Your task to perform on an android device: uninstall "YouTube Kids" Image 0: 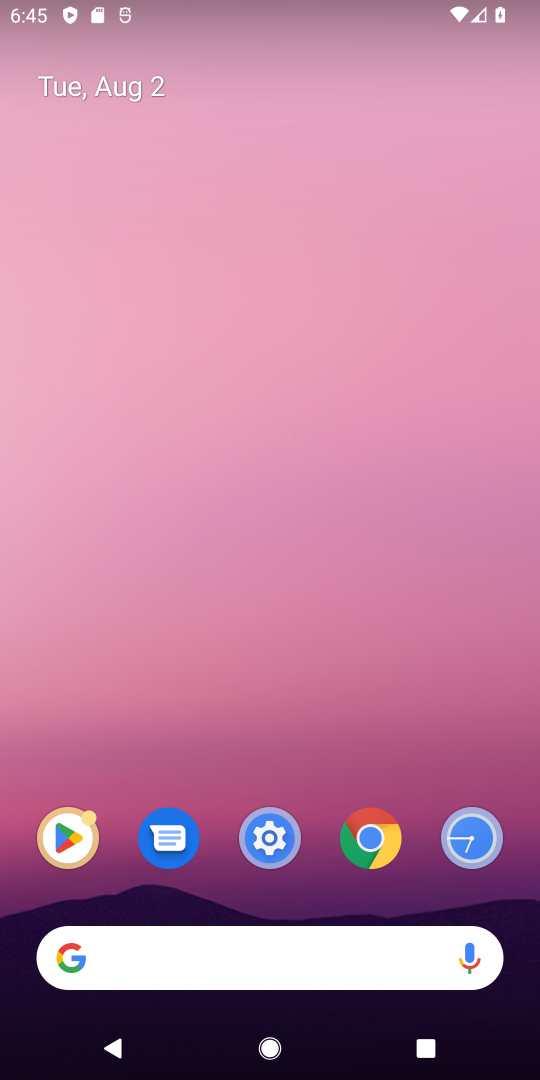
Step 0: click (83, 841)
Your task to perform on an android device: uninstall "YouTube Kids" Image 1: 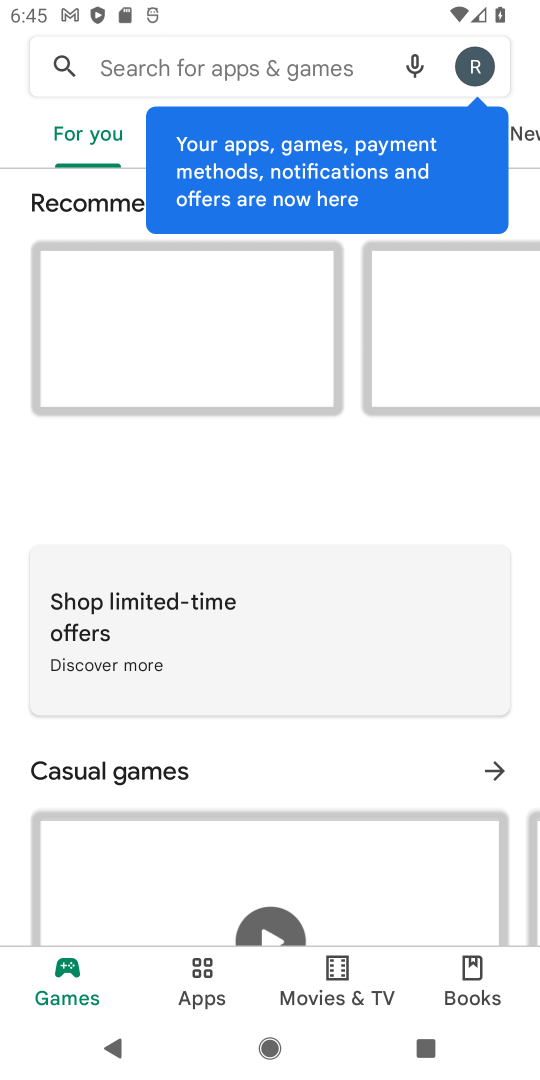
Step 1: click (298, 59)
Your task to perform on an android device: uninstall "YouTube Kids" Image 2: 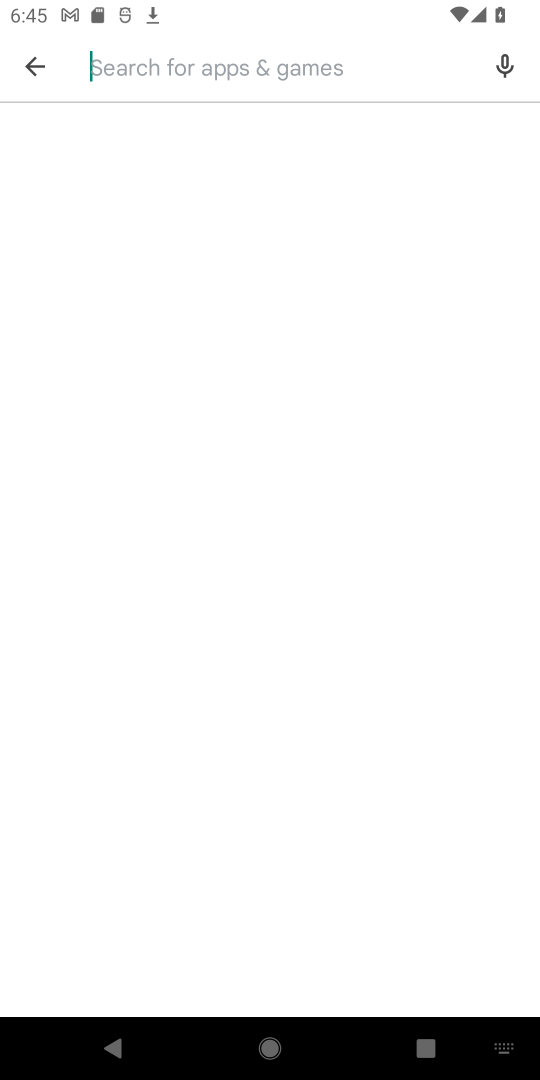
Step 2: type "youtube kids"
Your task to perform on an android device: uninstall "YouTube Kids" Image 3: 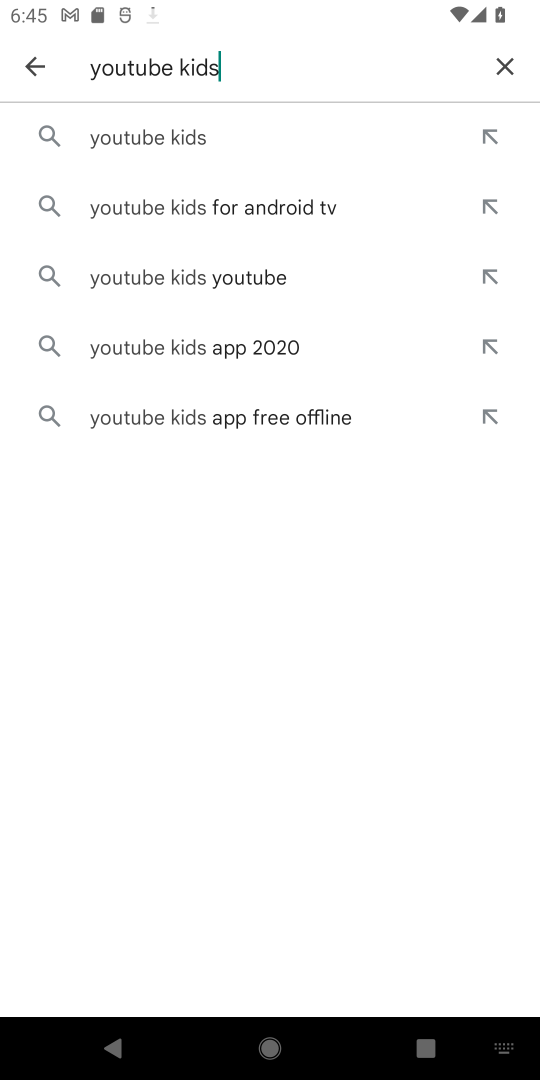
Step 3: click (147, 118)
Your task to perform on an android device: uninstall "YouTube Kids" Image 4: 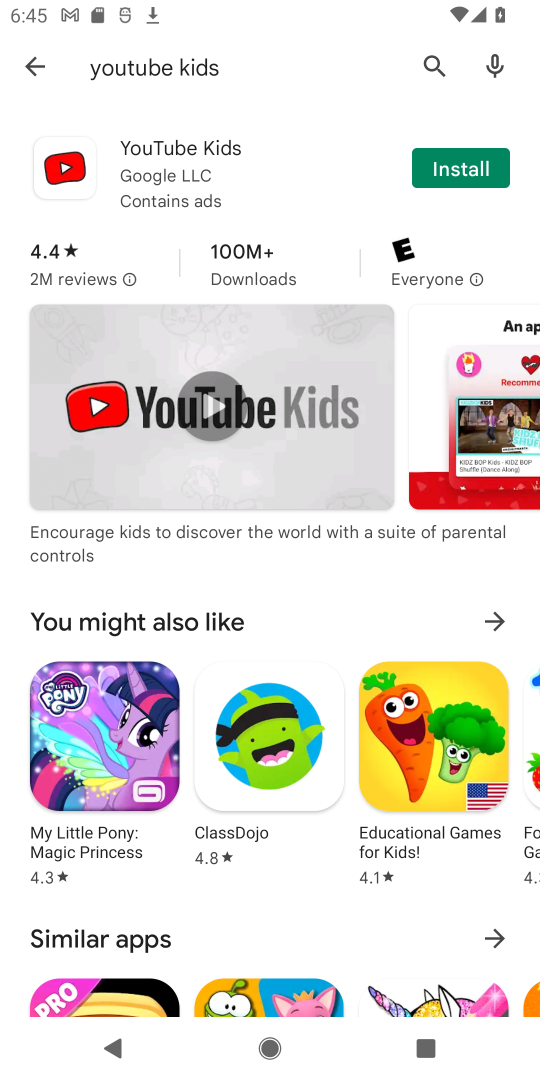
Step 4: click (155, 145)
Your task to perform on an android device: uninstall "YouTube Kids" Image 5: 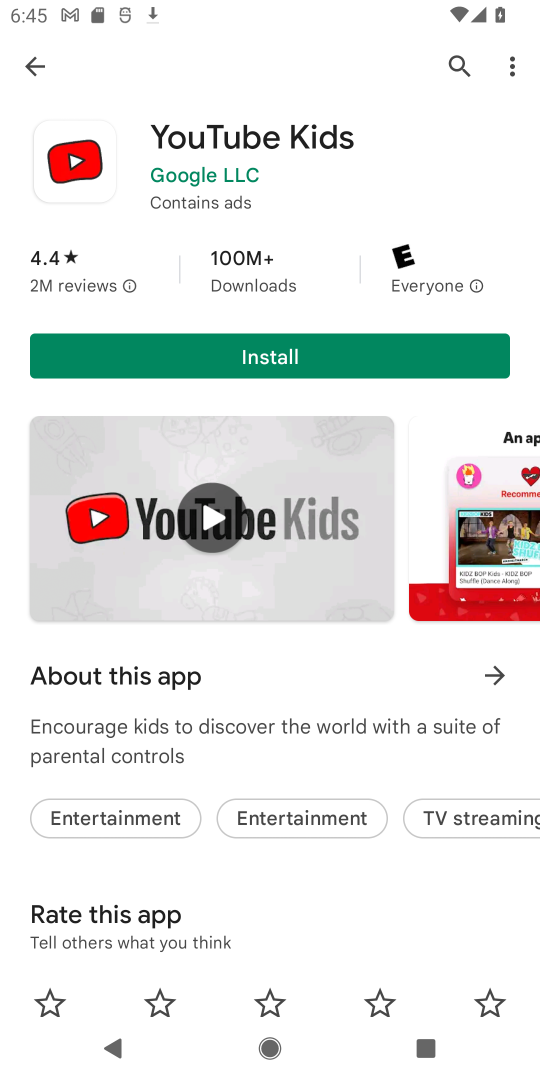
Step 5: task complete